Your task to perform on an android device: Open Yahoo.com Image 0: 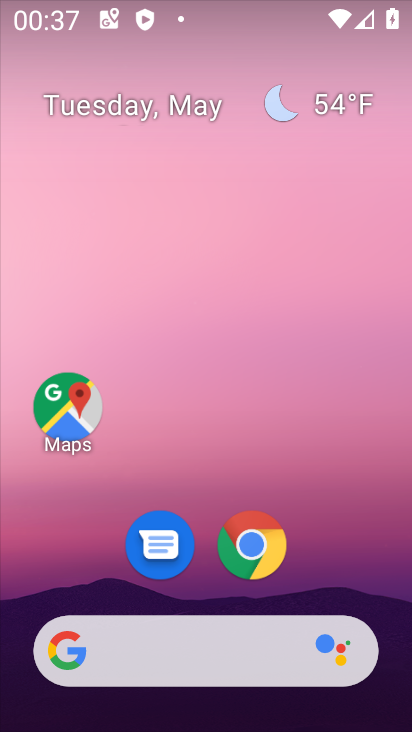
Step 0: click (277, 555)
Your task to perform on an android device: Open Yahoo.com Image 1: 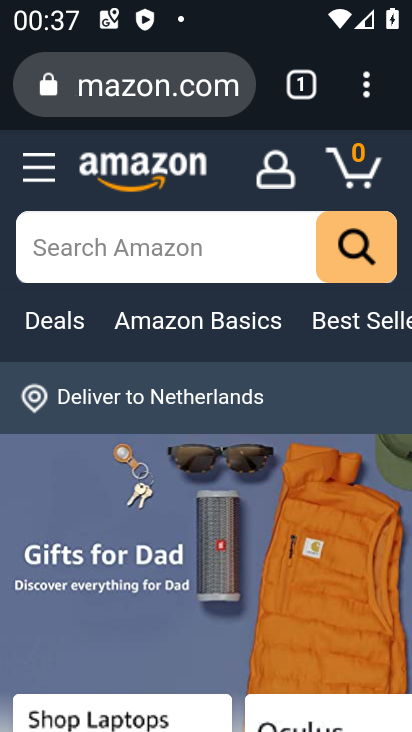
Step 1: click (296, 79)
Your task to perform on an android device: Open Yahoo.com Image 2: 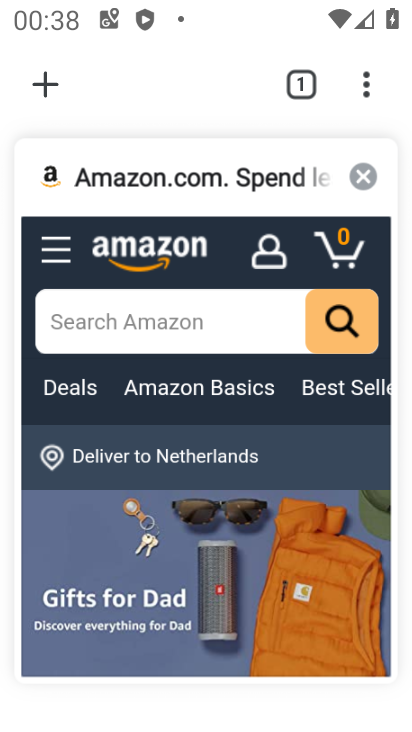
Step 2: click (369, 188)
Your task to perform on an android device: Open Yahoo.com Image 3: 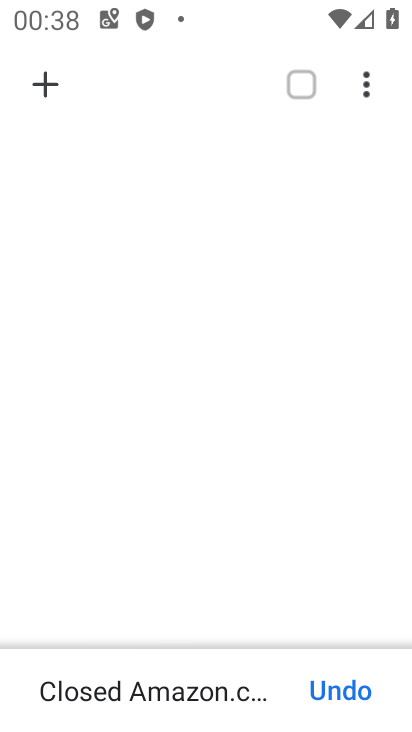
Step 3: click (48, 80)
Your task to perform on an android device: Open Yahoo.com Image 4: 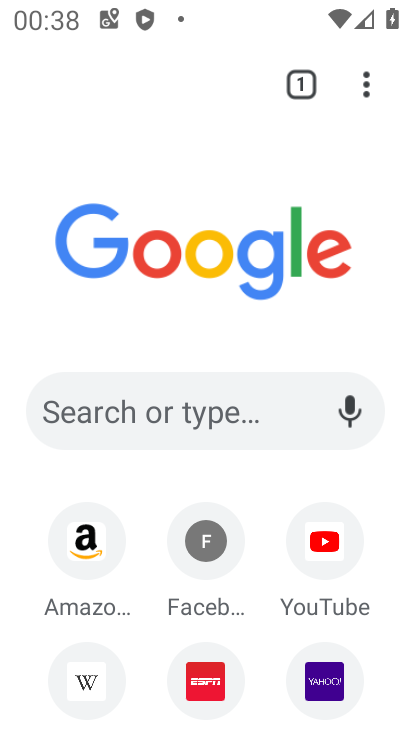
Step 4: click (341, 683)
Your task to perform on an android device: Open Yahoo.com Image 5: 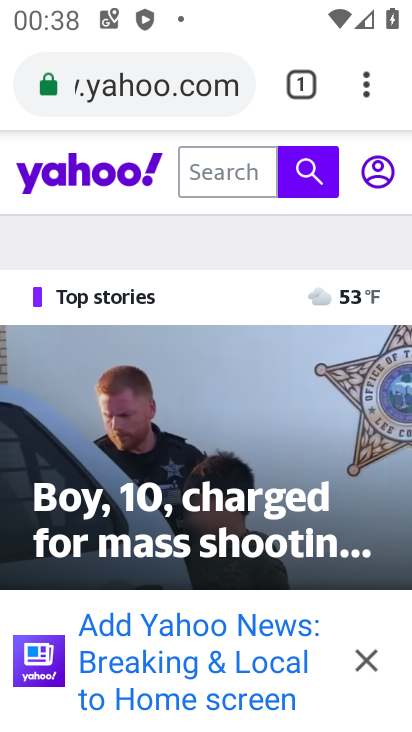
Step 5: task complete